Your task to perform on an android device: Show me productivity apps on the Play Store Image 0: 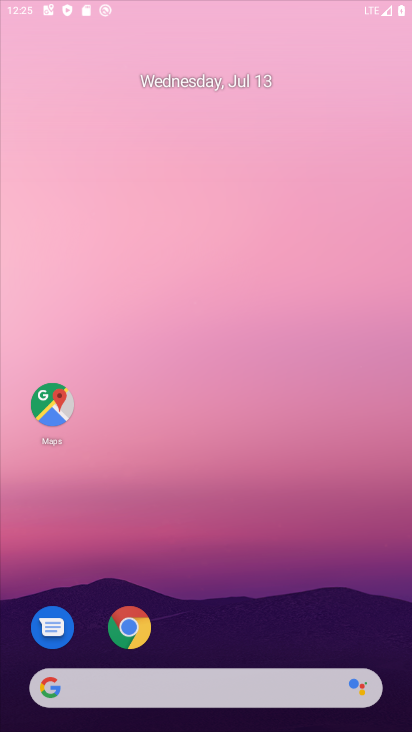
Step 0: drag from (395, 659) to (208, 2)
Your task to perform on an android device: Show me productivity apps on the Play Store Image 1: 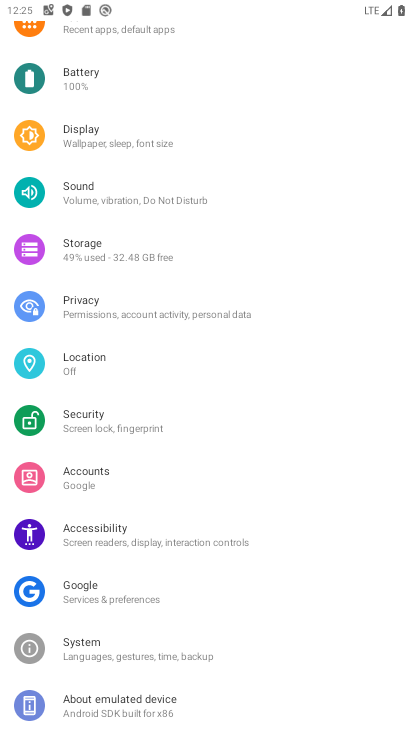
Step 1: press home button
Your task to perform on an android device: Show me productivity apps on the Play Store Image 2: 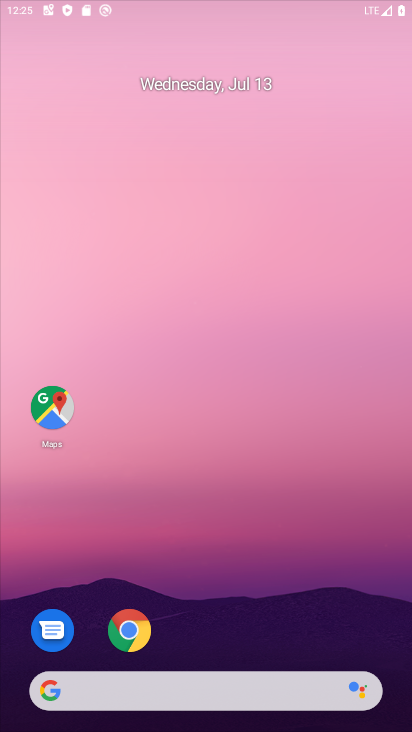
Step 2: drag from (400, 710) to (217, 29)
Your task to perform on an android device: Show me productivity apps on the Play Store Image 3: 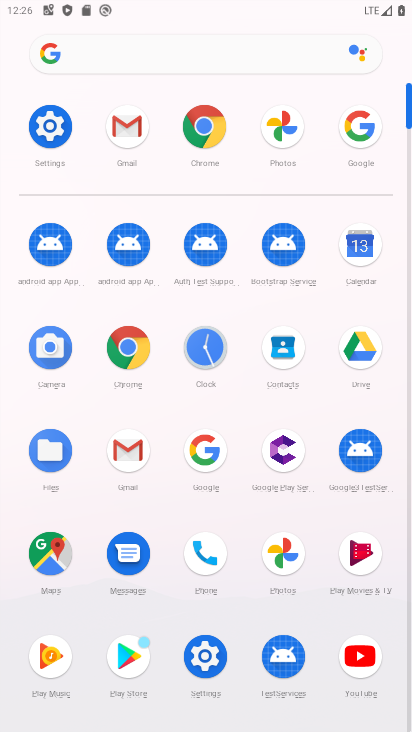
Step 3: click (131, 656)
Your task to perform on an android device: Show me productivity apps on the Play Store Image 4: 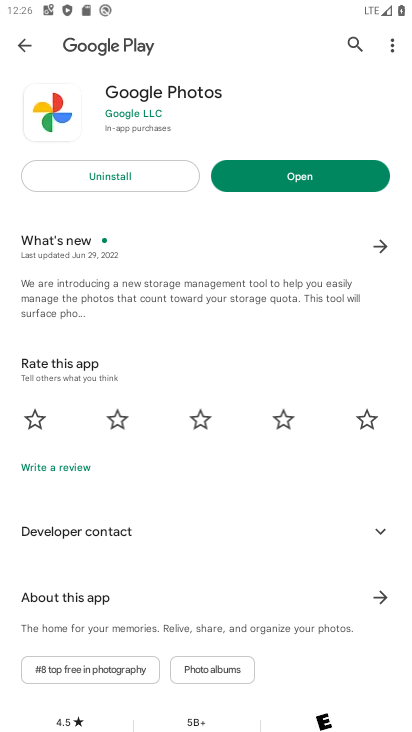
Step 4: press back button
Your task to perform on an android device: Show me productivity apps on the Play Store Image 5: 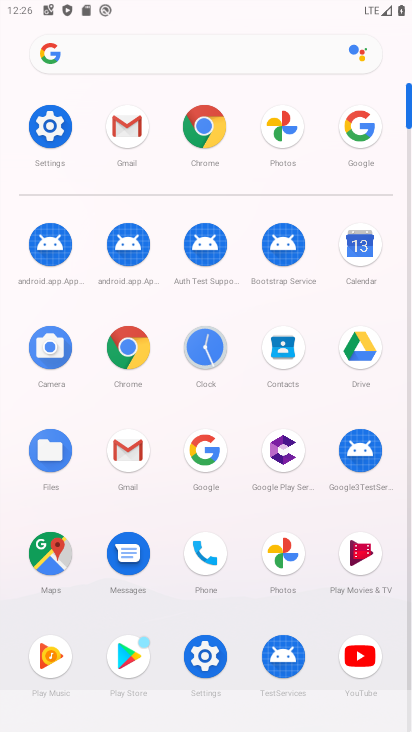
Step 5: click (146, 653)
Your task to perform on an android device: Show me productivity apps on the Play Store Image 6: 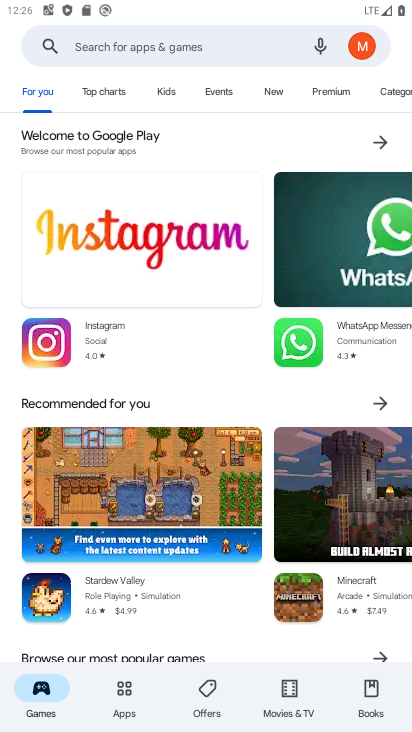
Step 6: task complete